Your task to perform on an android device: Go to Maps Image 0: 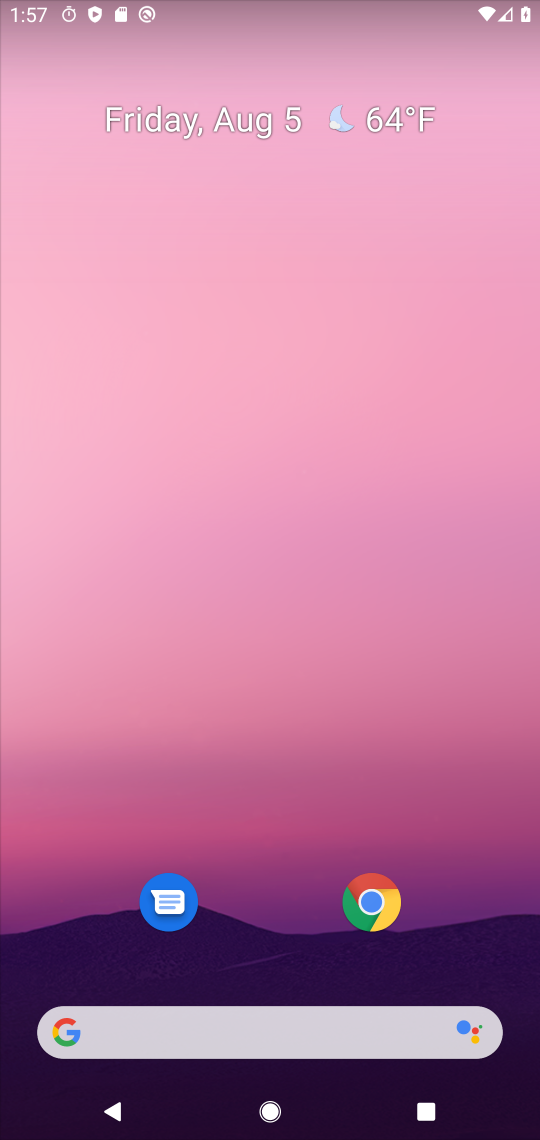
Step 0: press home button
Your task to perform on an android device: Go to Maps Image 1: 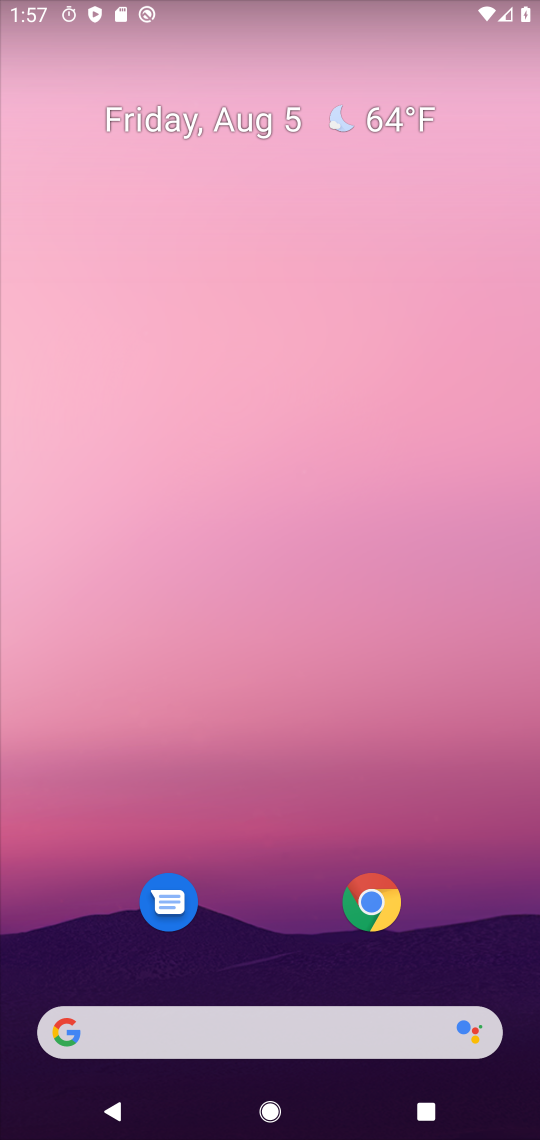
Step 1: drag from (254, 1059) to (309, 288)
Your task to perform on an android device: Go to Maps Image 2: 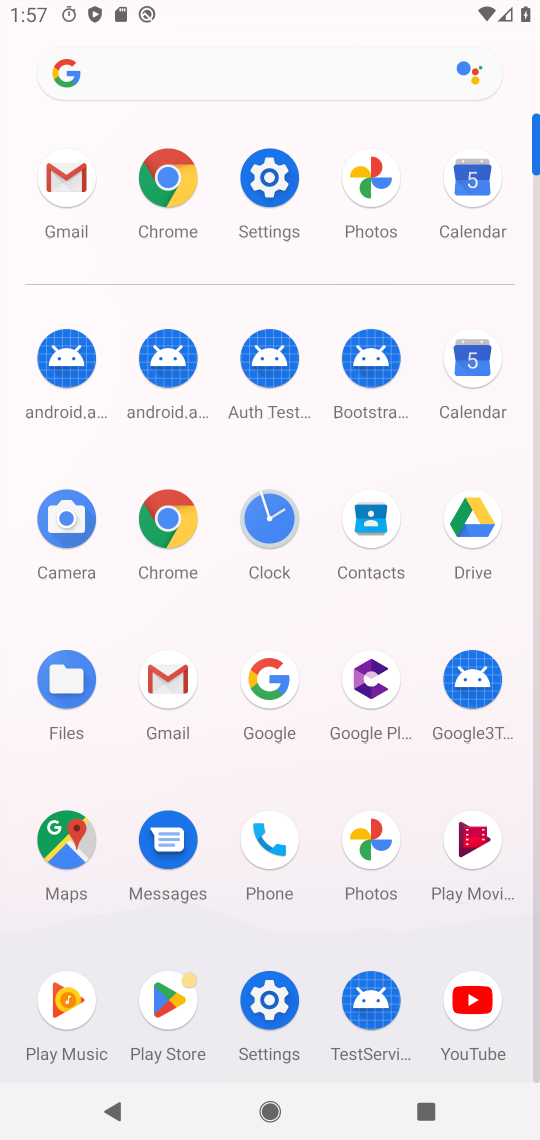
Step 2: click (58, 849)
Your task to perform on an android device: Go to Maps Image 3: 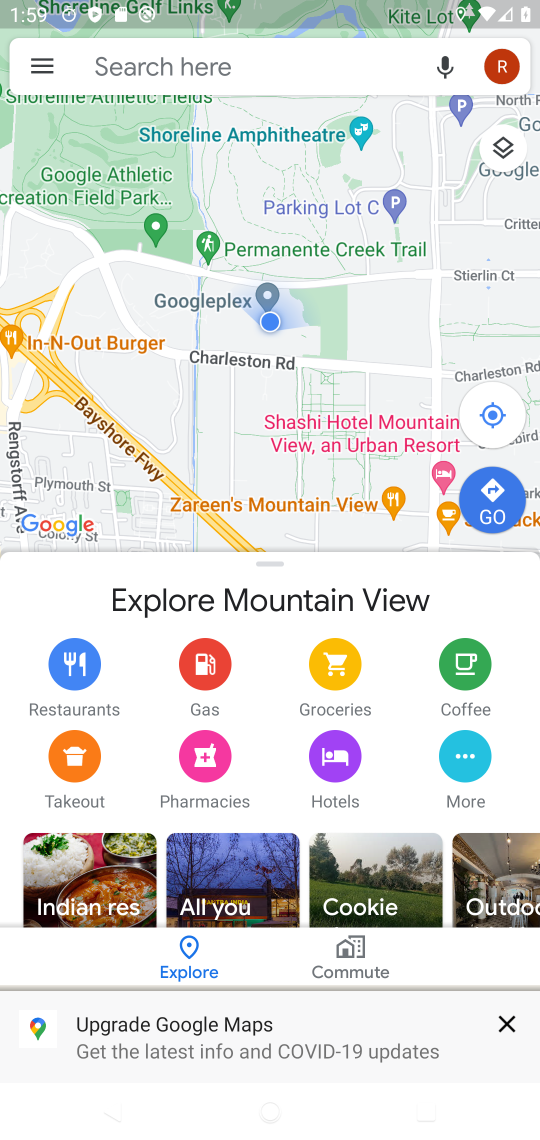
Step 3: task complete